Your task to perform on an android device: View the shopping cart on amazon. Image 0: 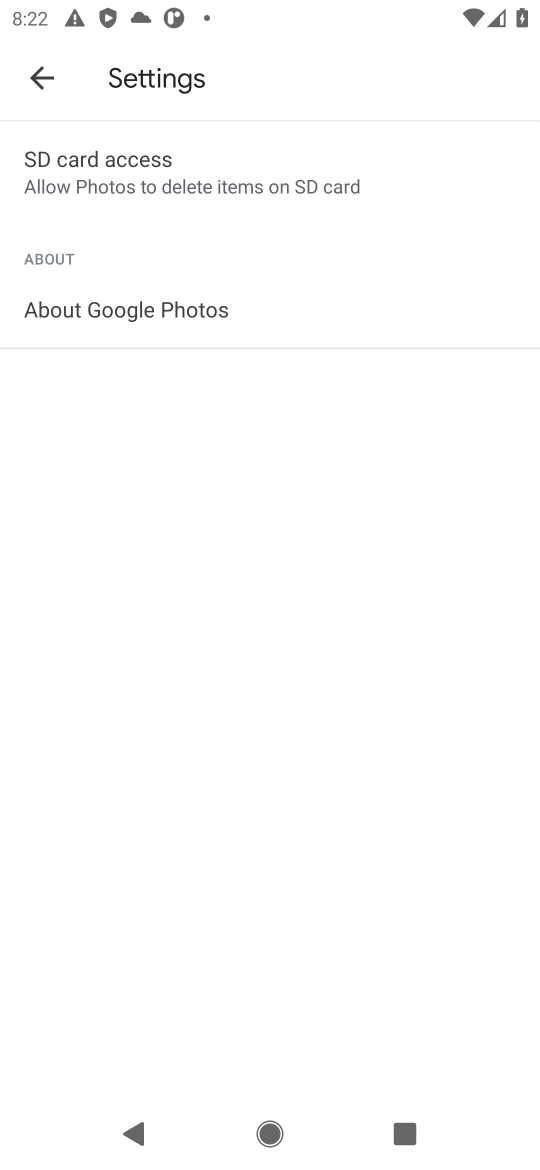
Step 0: press home button
Your task to perform on an android device: View the shopping cart on amazon. Image 1: 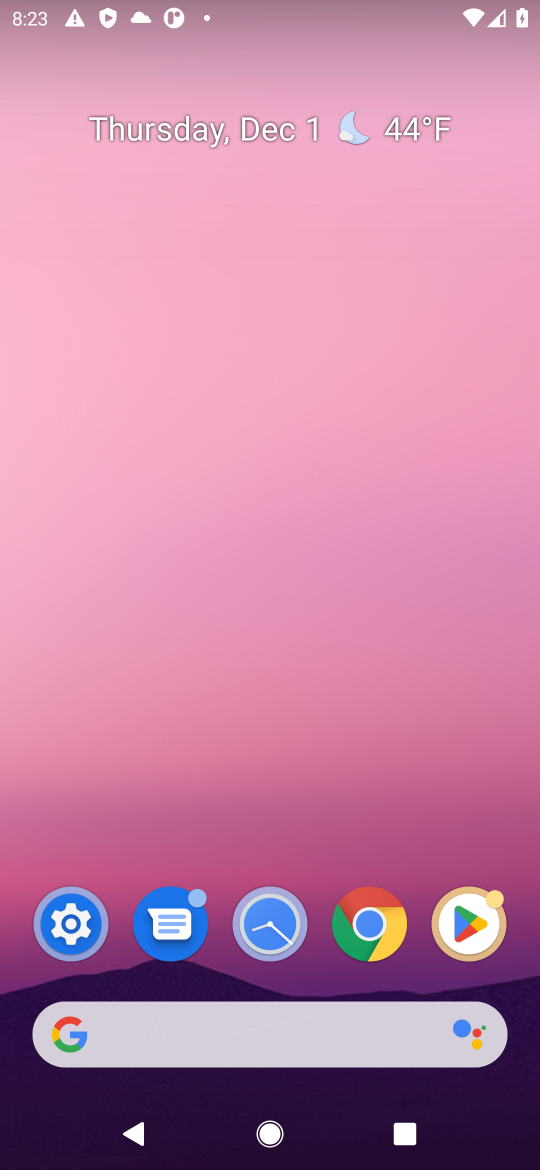
Step 1: click (195, 1026)
Your task to perform on an android device: View the shopping cart on amazon. Image 2: 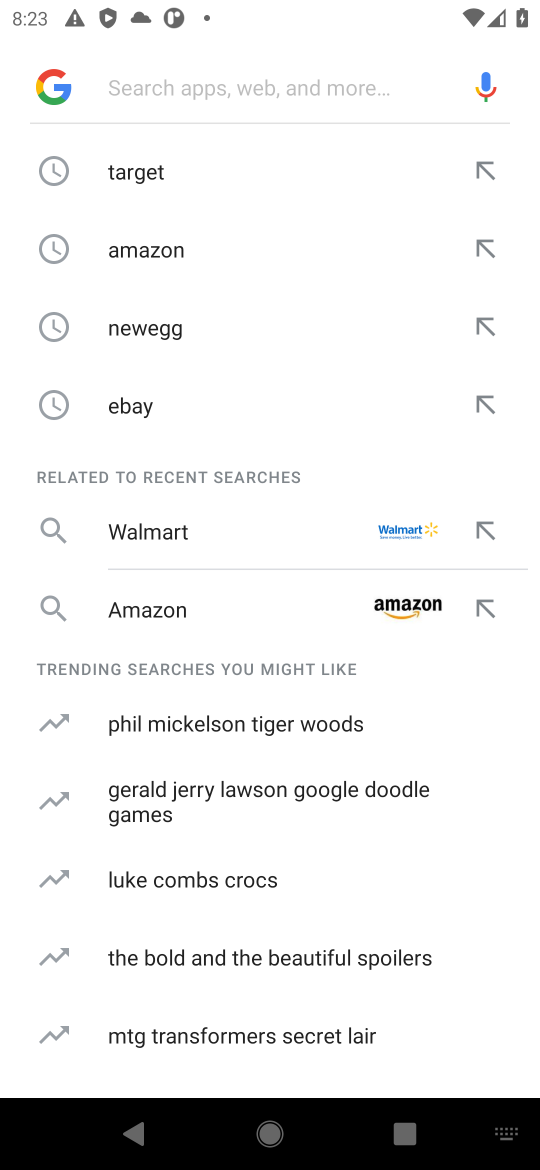
Step 2: click (332, 621)
Your task to perform on an android device: View the shopping cart on amazon. Image 3: 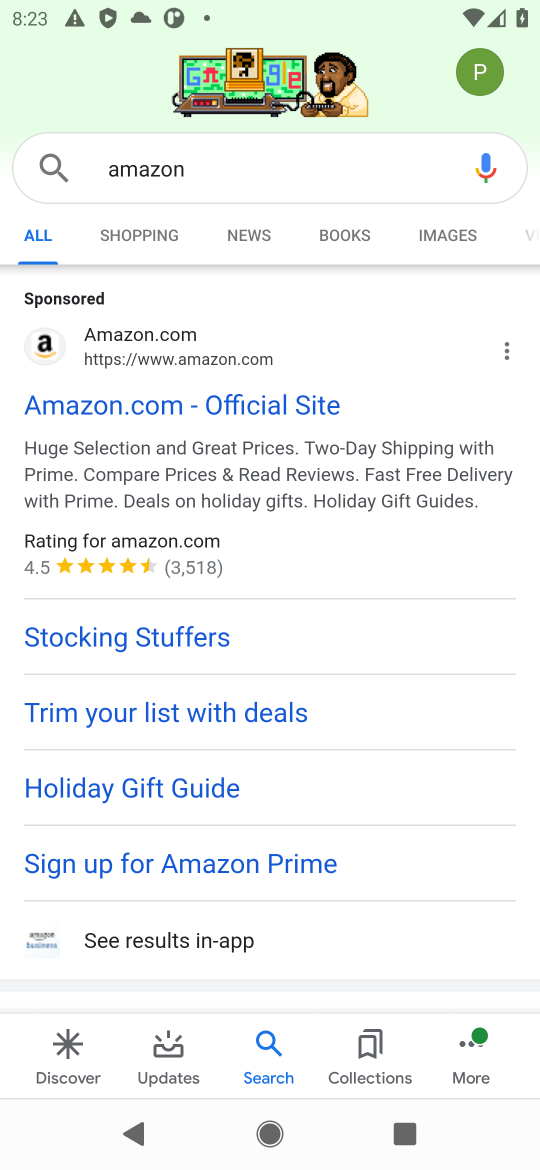
Step 3: click (103, 412)
Your task to perform on an android device: View the shopping cart on amazon. Image 4: 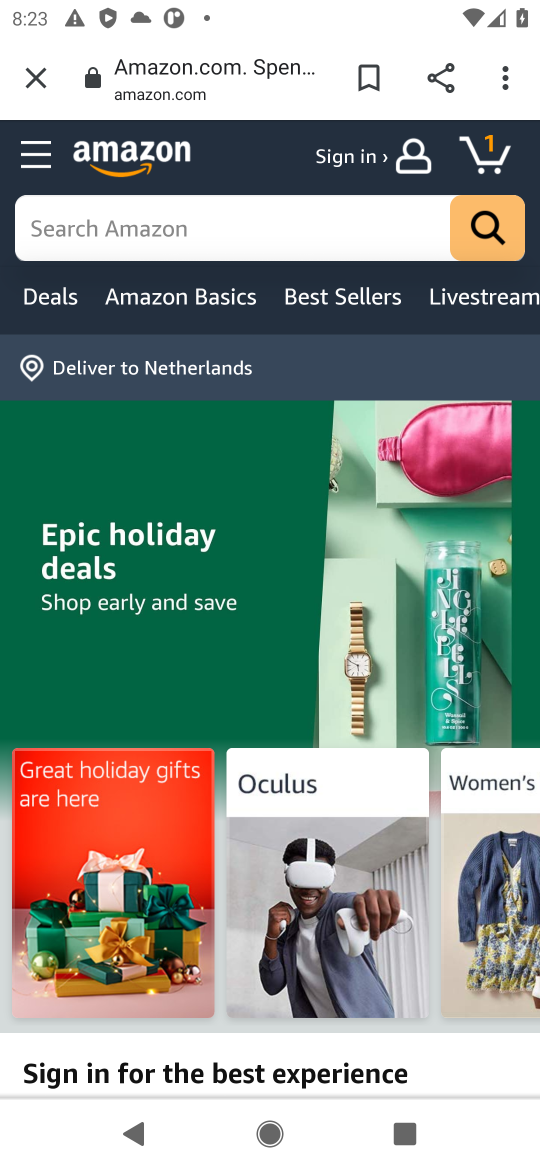
Step 4: click (67, 247)
Your task to perform on an android device: View the shopping cart on amazon. Image 5: 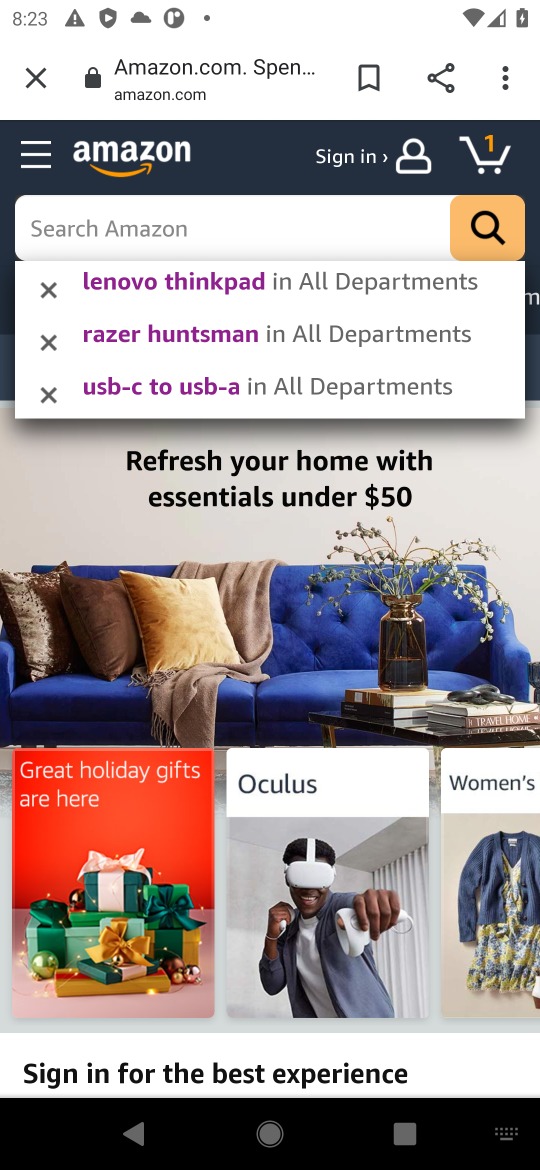
Step 5: click (492, 174)
Your task to perform on an android device: View the shopping cart on amazon. Image 6: 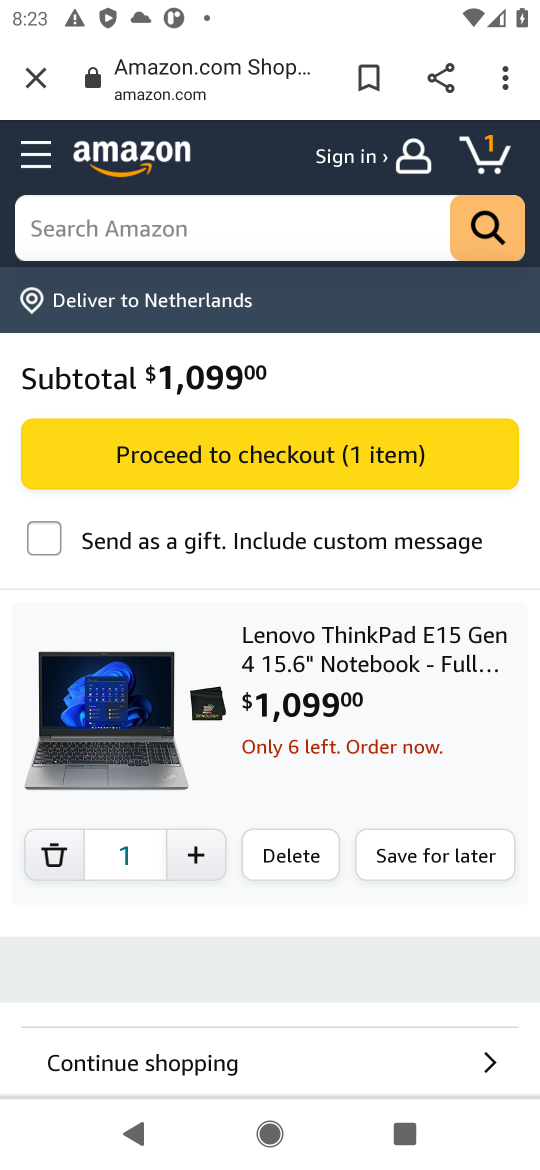
Step 6: task complete